Your task to perform on an android device: Go to calendar. Show me events next week Image 0: 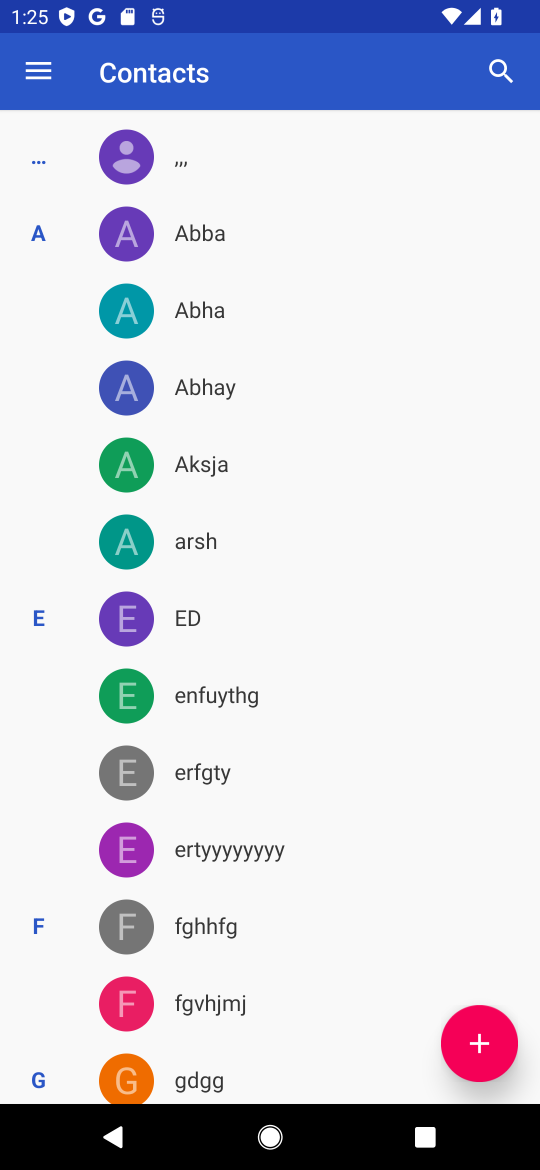
Step 0: press home button
Your task to perform on an android device: Go to calendar. Show me events next week Image 1: 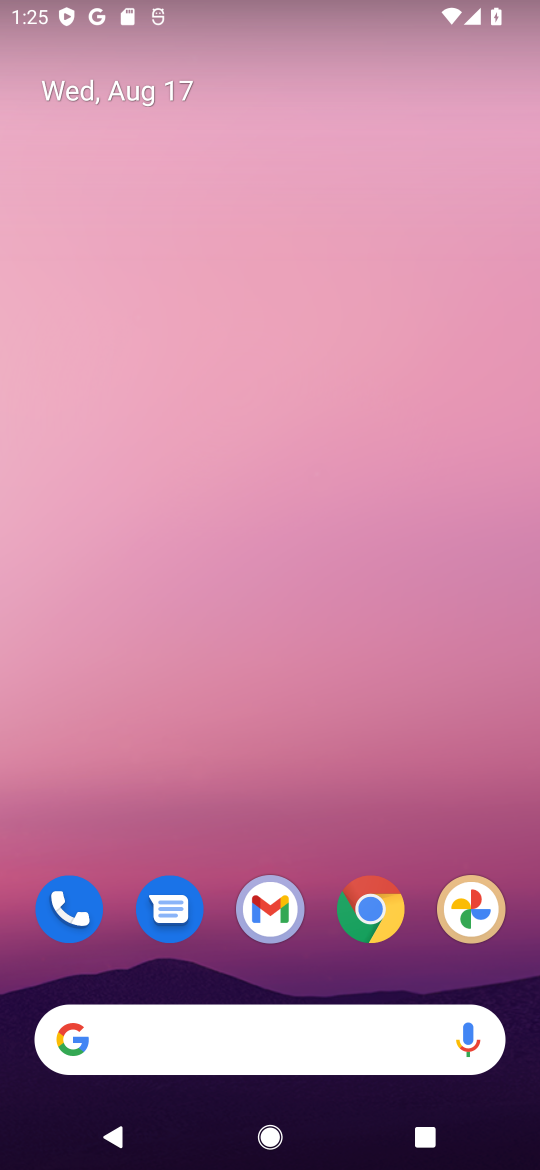
Step 1: drag from (321, 805) to (263, 159)
Your task to perform on an android device: Go to calendar. Show me events next week Image 2: 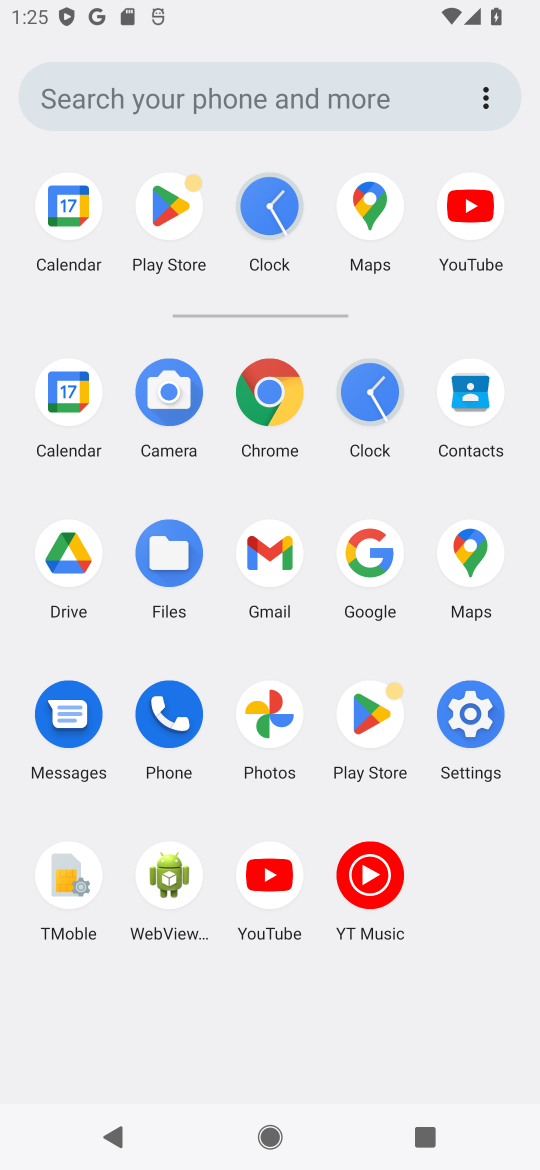
Step 2: click (60, 385)
Your task to perform on an android device: Go to calendar. Show me events next week Image 3: 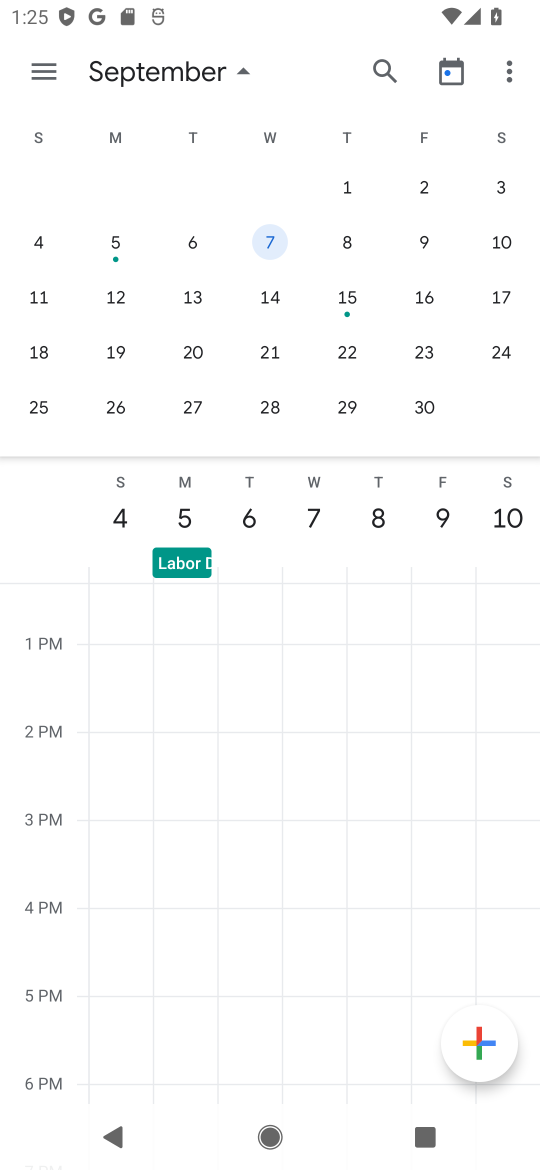
Step 3: drag from (49, 279) to (425, 293)
Your task to perform on an android device: Go to calendar. Show me events next week Image 4: 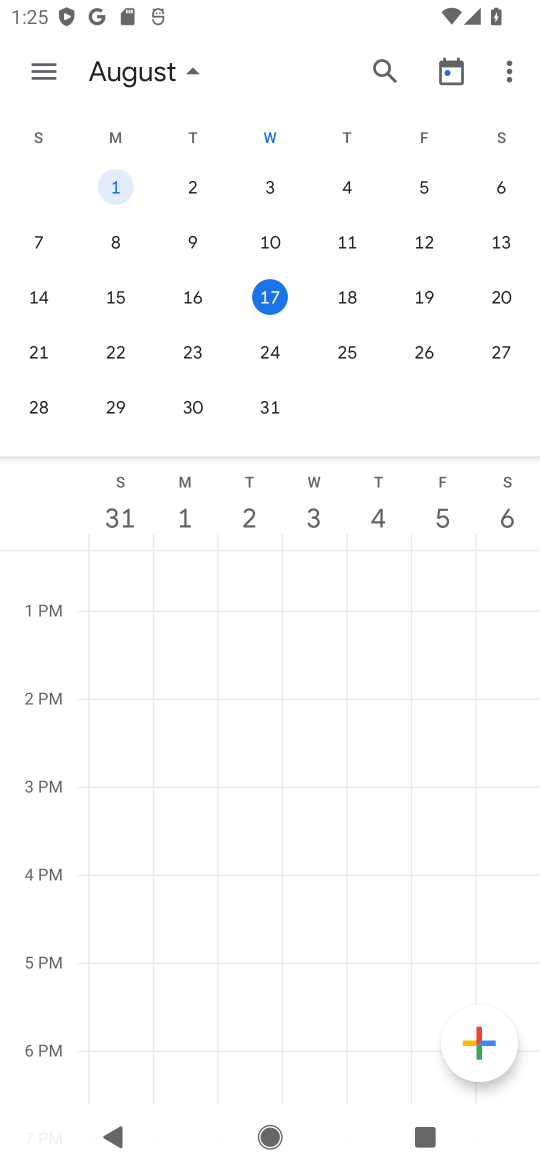
Step 4: click (270, 293)
Your task to perform on an android device: Go to calendar. Show me events next week Image 5: 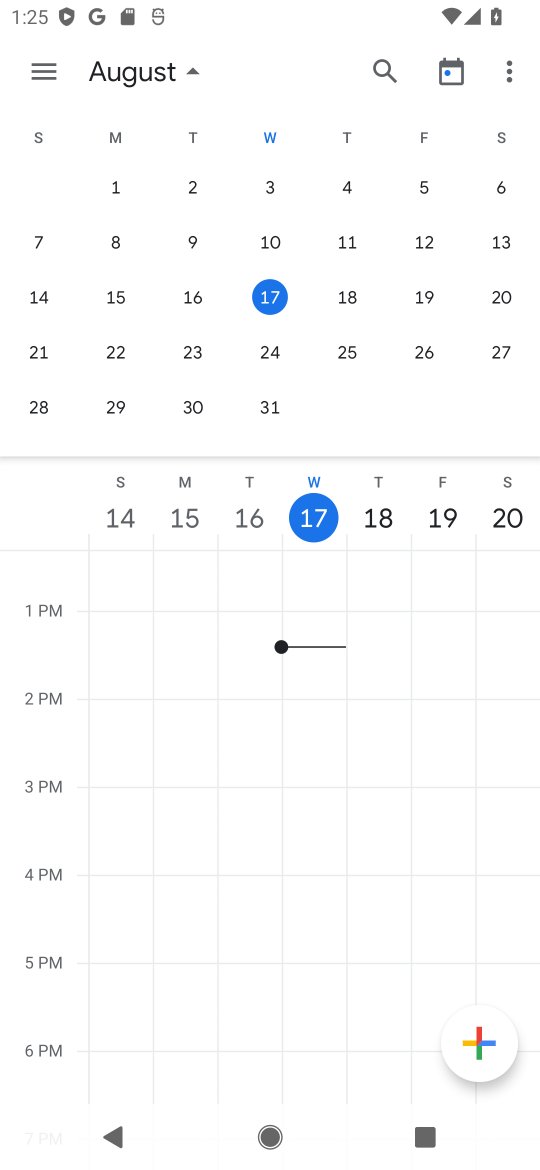
Step 5: click (264, 350)
Your task to perform on an android device: Go to calendar. Show me events next week Image 6: 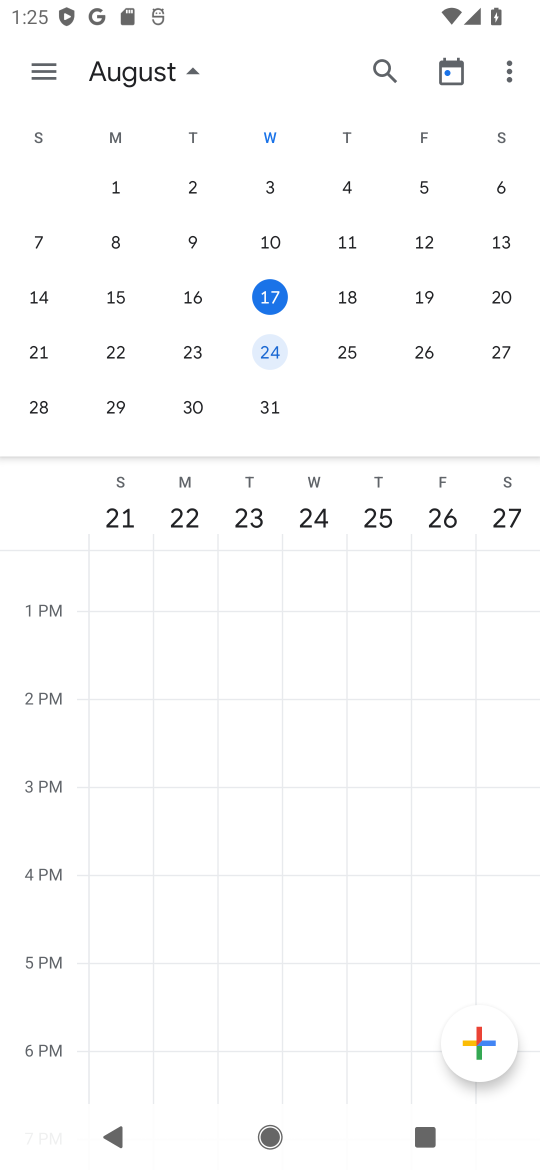
Step 6: task complete